Your task to perform on an android device: open wifi settings Image 0: 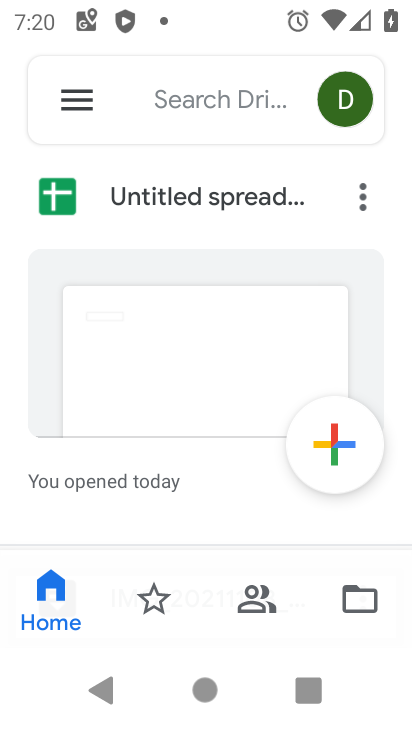
Step 0: press home button
Your task to perform on an android device: open wifi settings Image 1: 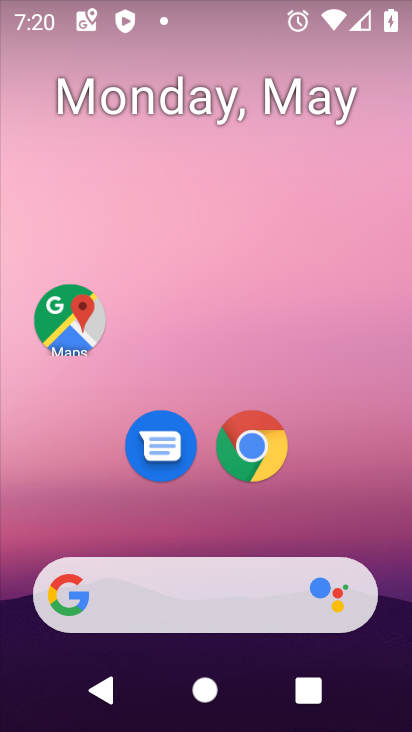
Step 1: drag from (327, 516) to (168, 30)
Your task to perform on an android device: open wifi settings Image 2: 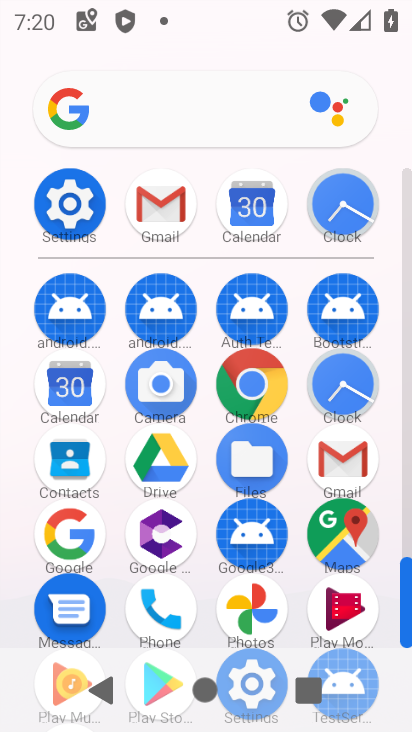
Step 2: click (69, 203)
Your task to perform on an android device: open wifi settings Image 3: 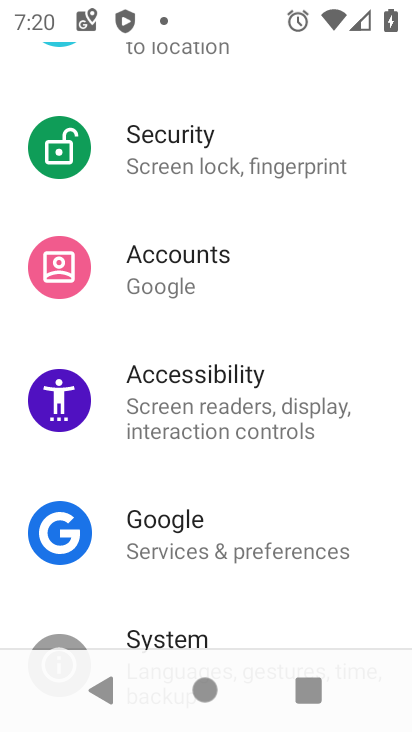
Step 3: drag from (279, 204) to (305, 717)
Your task to perform on an android device: open wifi settings Image 4: 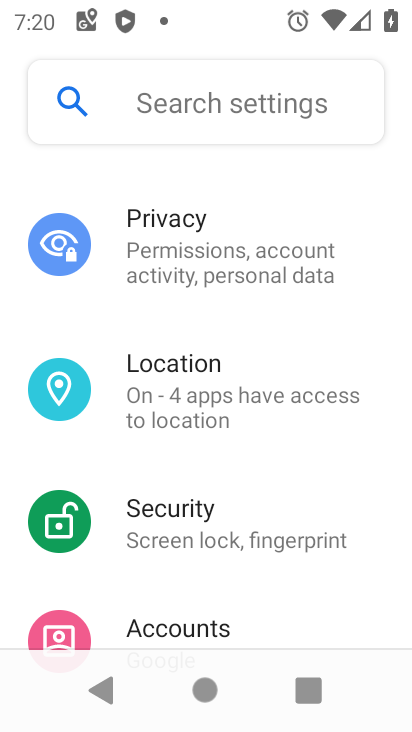
Step 4: drag from (216, 338) to (169, 664)
Your task to perform on an android device: open wifi settings Image 5: 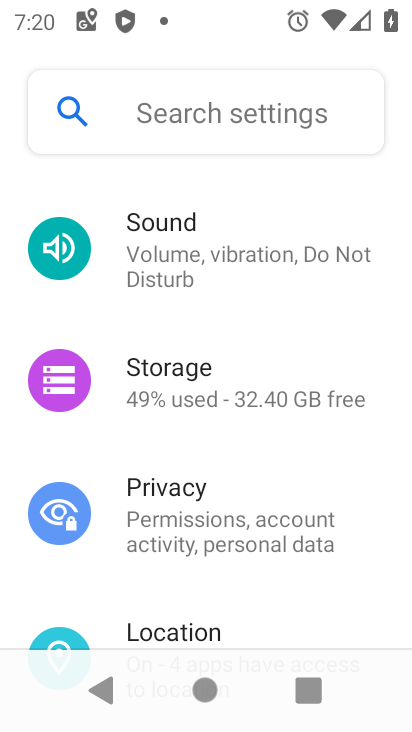
Step 5: drag from (138, 317) to (152, 705)
Your task to perform on an android device: open wifi settings Image 6: 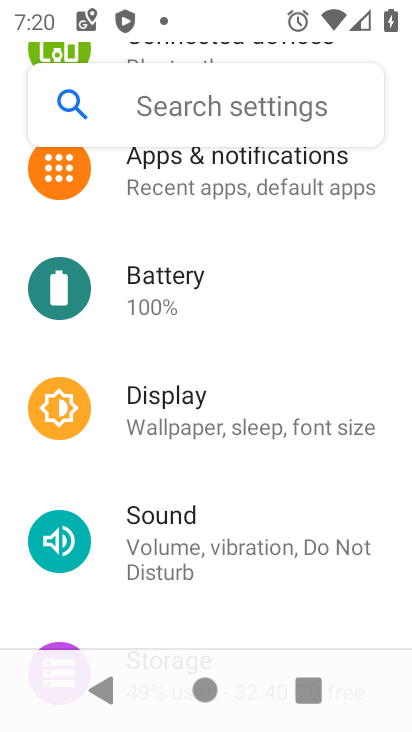
Step 6: drag from (175, 225) to (282, 722)
Your task to perform on an android device: open wifi settings Image 7: 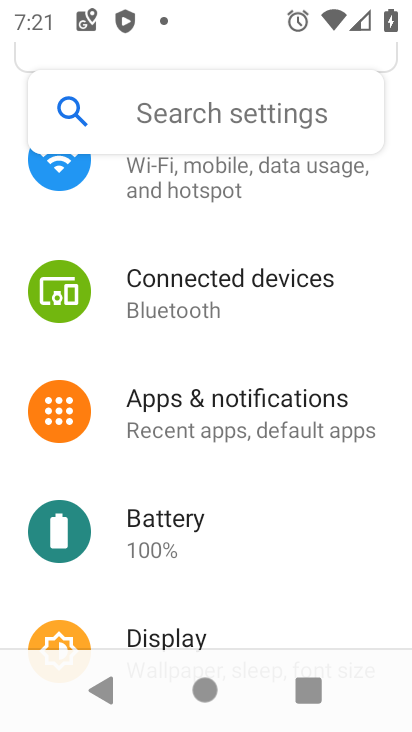
Step 7: drag from (211, 219) to (334, 720)
Your task to perform on an android device: open wifi settings Image 8: 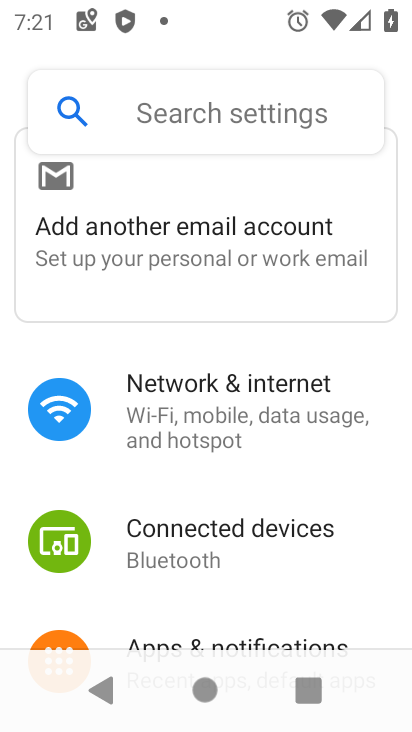
Step 8: click (175, 408)
Your task to perform on an android device: open wifi settings Image 9: 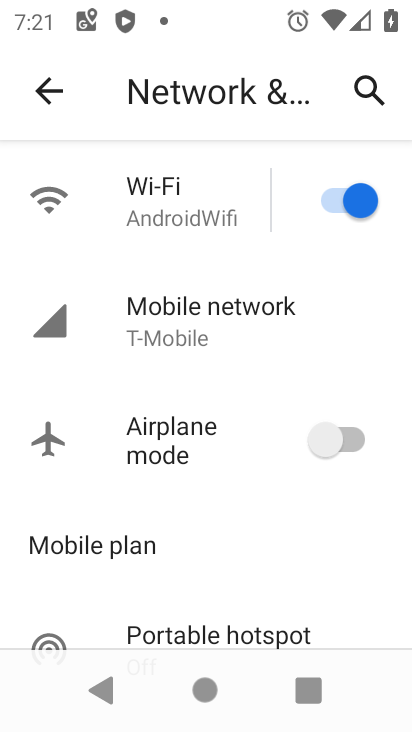
Step 9: click (172, 191)
Your task to perform on an android device: open wifi settings Image 10: 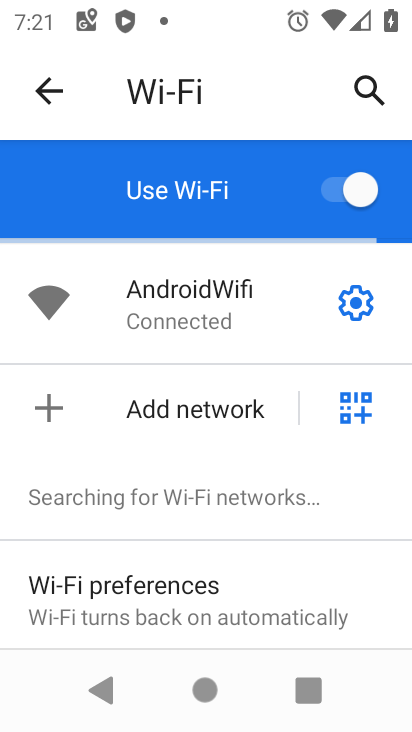
Step 10: task complete